Your task to perform on an android device: Clear all items from cart on amazon. Search for "razer nari" on amazon, select the first entry, and add it to the cart. Image 0: 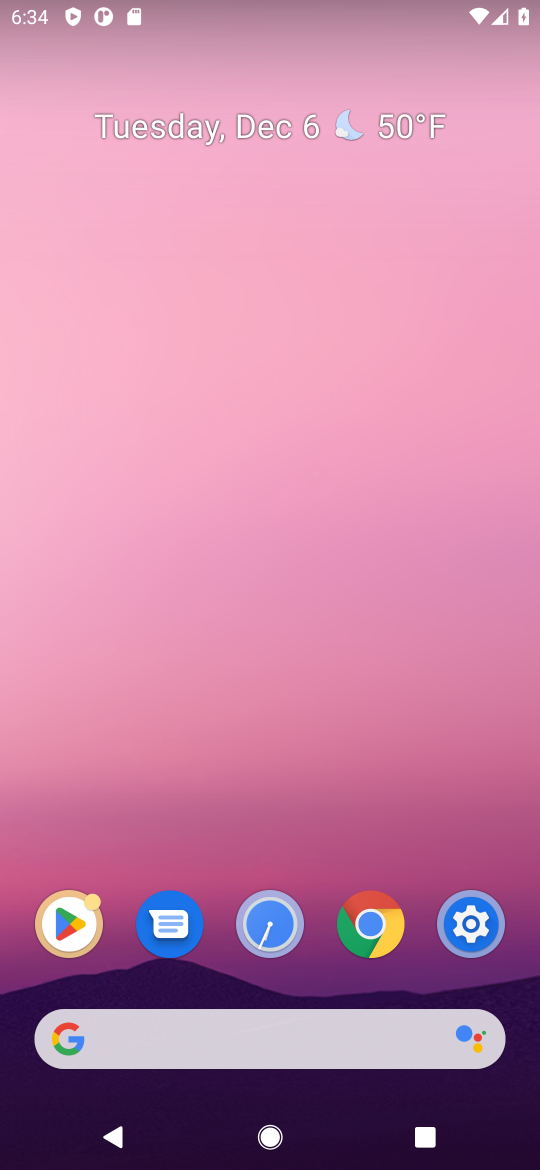
Step 0: click (256, 1058)
Your task to perform on an android device: Clear all items from cart on amazon. Search for "razer nari" on amazon, select the first entry, and add it to the cart. Image 1: 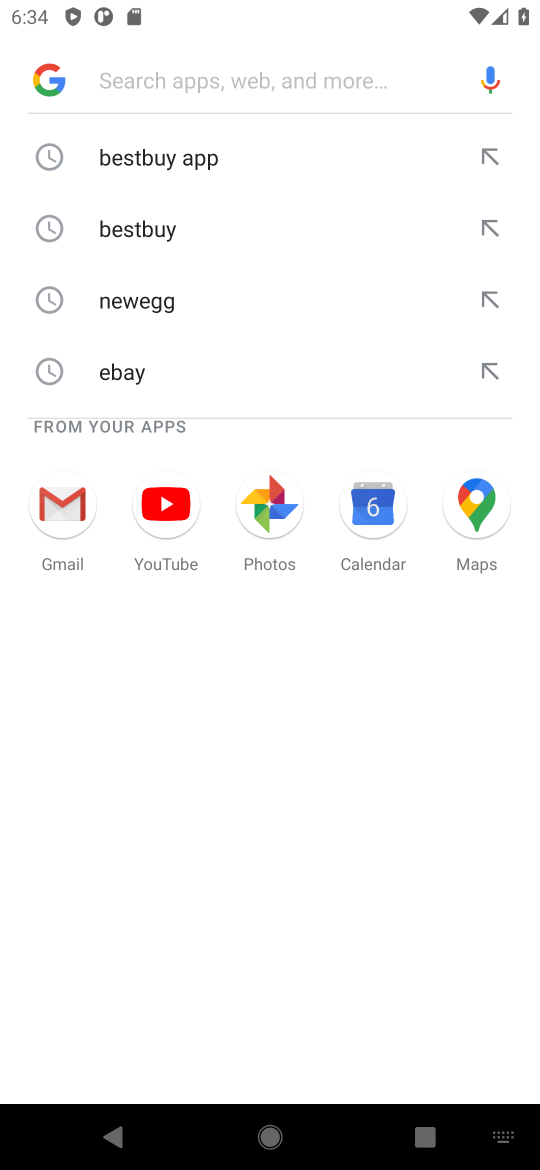
Step 1: type "amazon"
Your task to perform on an android device: Clear all items from cart on amazon. Search for "razer nari" on amazon, select the first entry, and add it to the cart. Image 2: 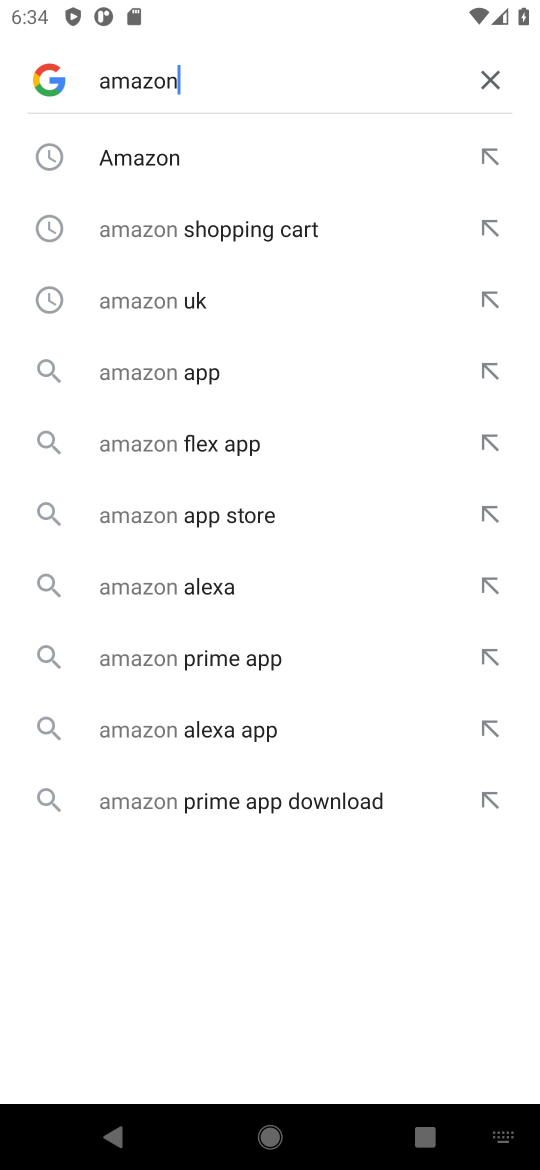
Step 2: click (165, 164)
Your task to perform on an android device: Clear all items from cart on amazon. Search for "razer nari" on amazon, select the first entry, and add it to the cart. Image 3: 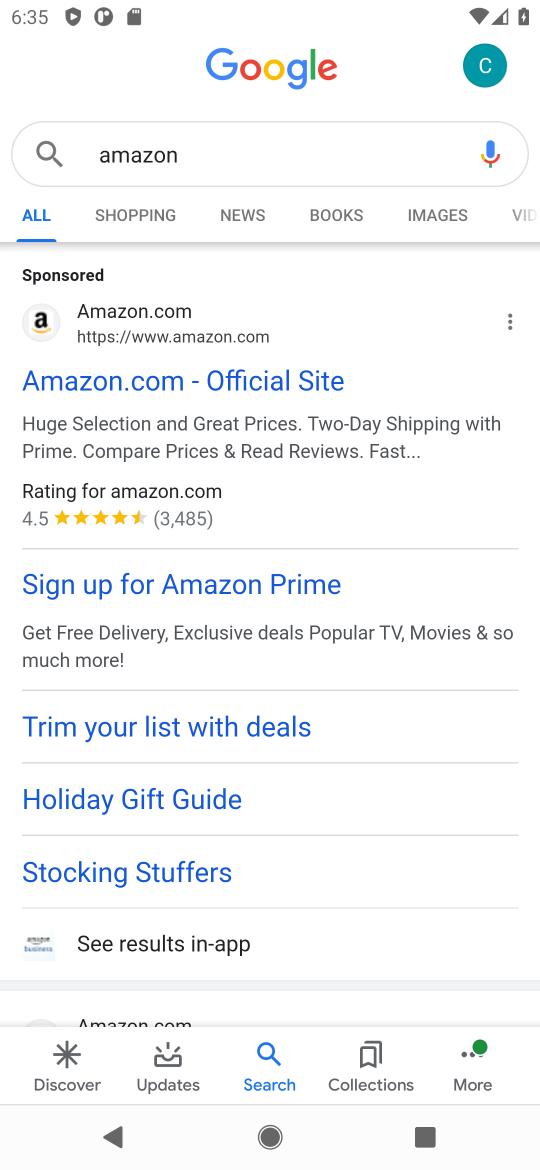
Step 3: click (71, 388)
Your task to perform on an android device: Clear all items from cart on amazon. Search for "razer nari" on amazon, select the first entry, and add it to the cart. Image 4: 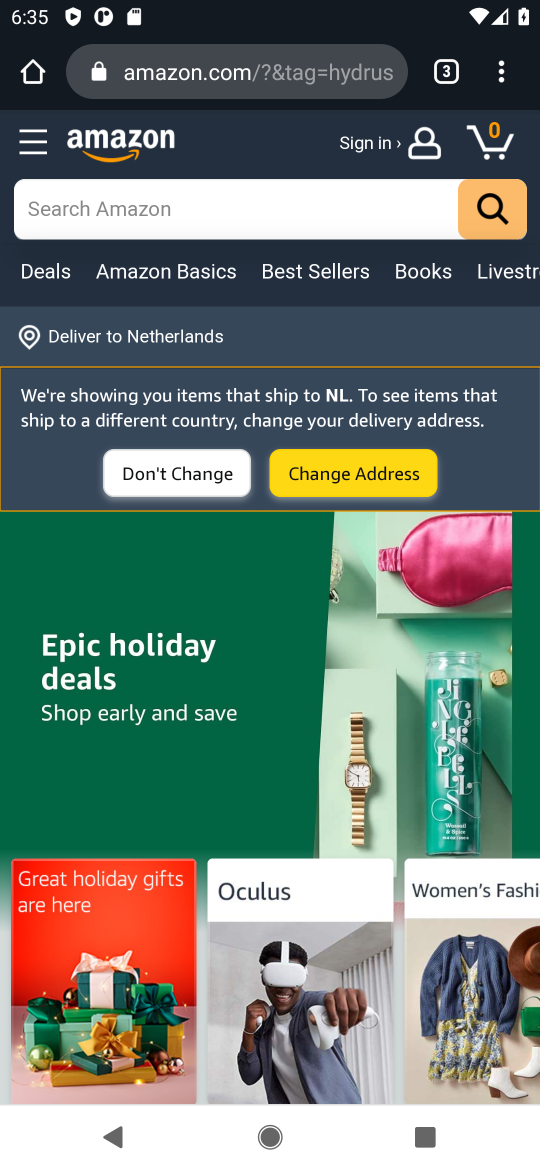
Step 4: click (233, 209)
Your task to perform on an android device: Clear all items from cart on amazon. Search for "razer nari" on amazon, select the first entry, and add it to the cart. Image 5: 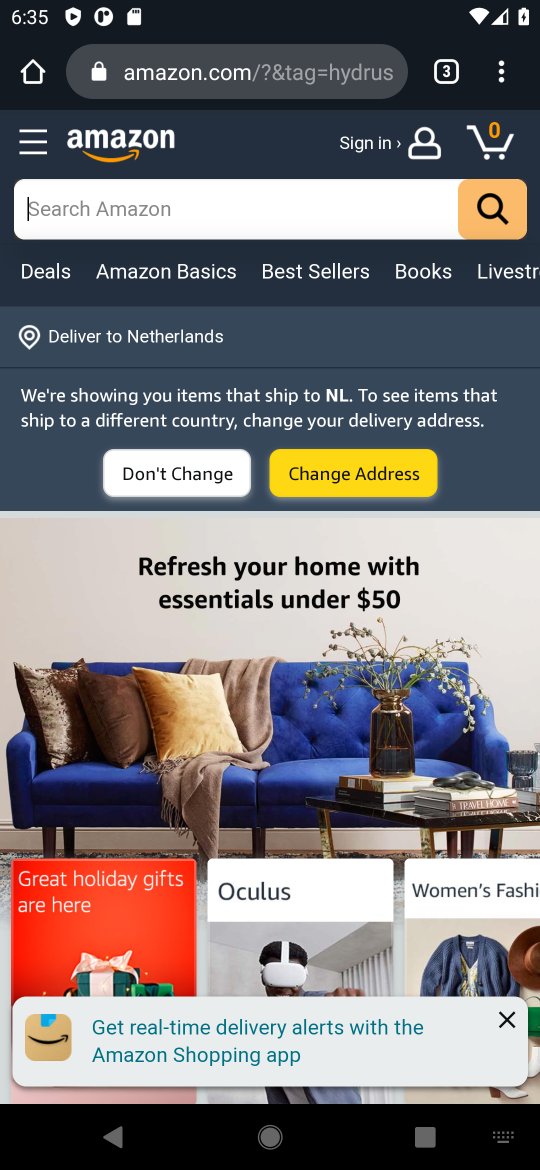
Step 5: type "razer nari"
Your task to perform on an android device: Clear all items from cart on amazon. Search for "razer nari" on amazon, select the first entry, and add it to the cart. Image 6: 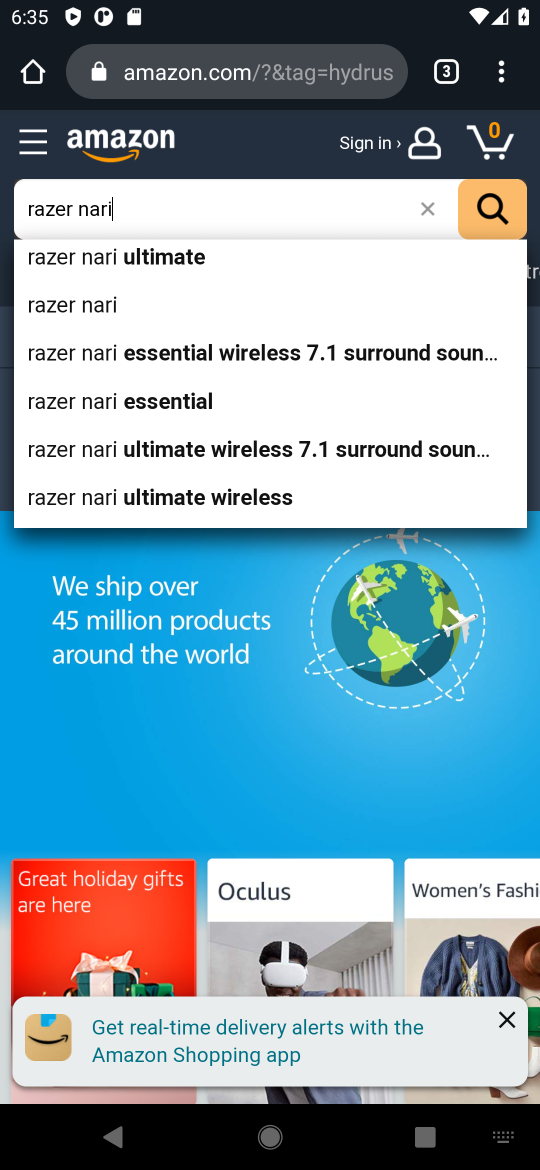
Step 6: click (56, 293)
Your task to perform on an android device: Clear all items from cart on amazon. Search for "razer nari" on amazon, select the first entry, and add it to the cart. Image 7: 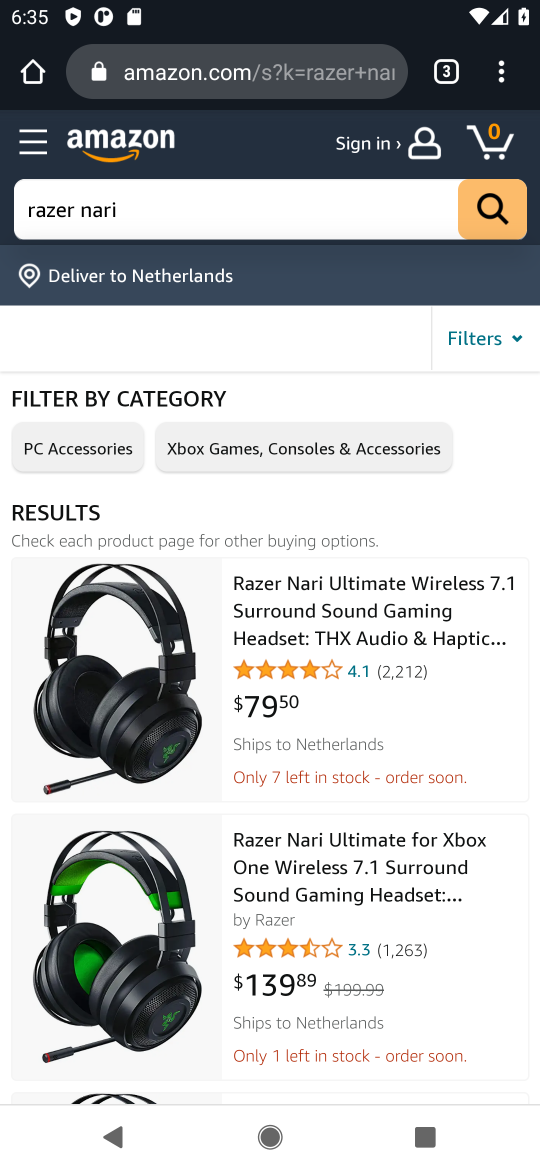
Step 7: click (266, 692)
Your task to perform on an android device: Clear all items from cart on amazon. Search for "razer nari" on amazon, select the first entry, and add it to the cart. Image 8: 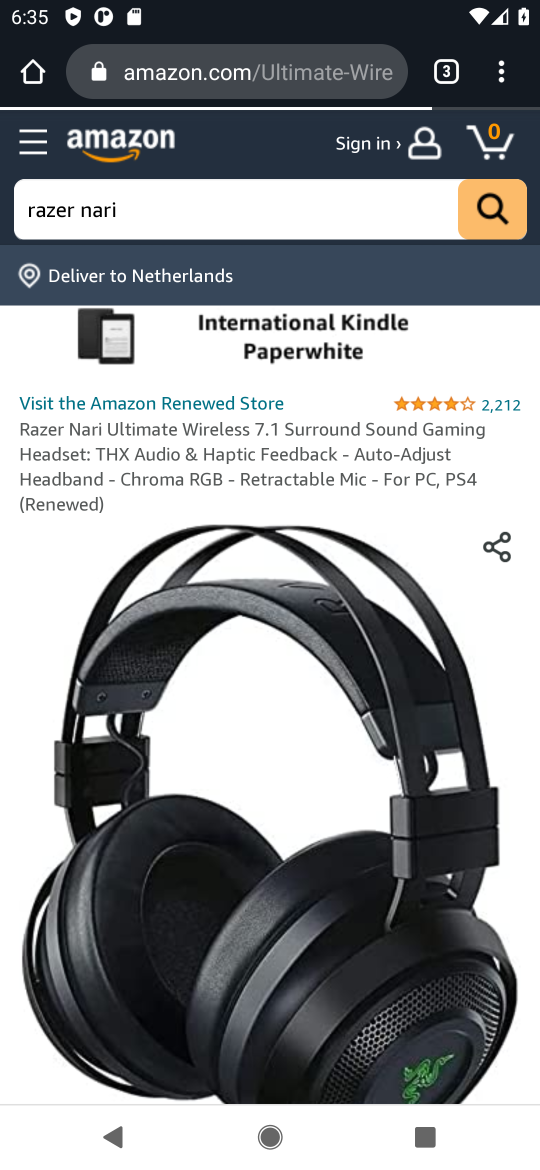
Step 8: drag from (305, 903) to (218, 302)
Your task to perform on an android device: Clear all items from cart on amazon. Search for "razer nari" on amazon, select the first entry, and add it to the cart. Image 9: 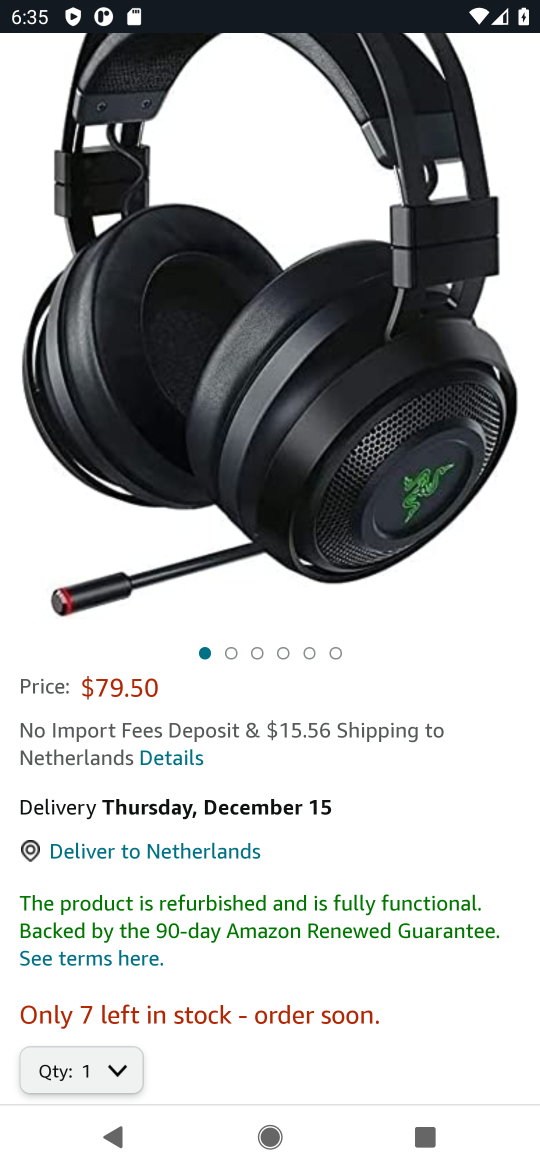
Step 9: drag from (389, 976) to (418, 673)
Your task to perform on an android device: Clear all items from cart on amazon. Search for "razer nari" on amazon, select the first entry, and add it to the cart. Image 10: 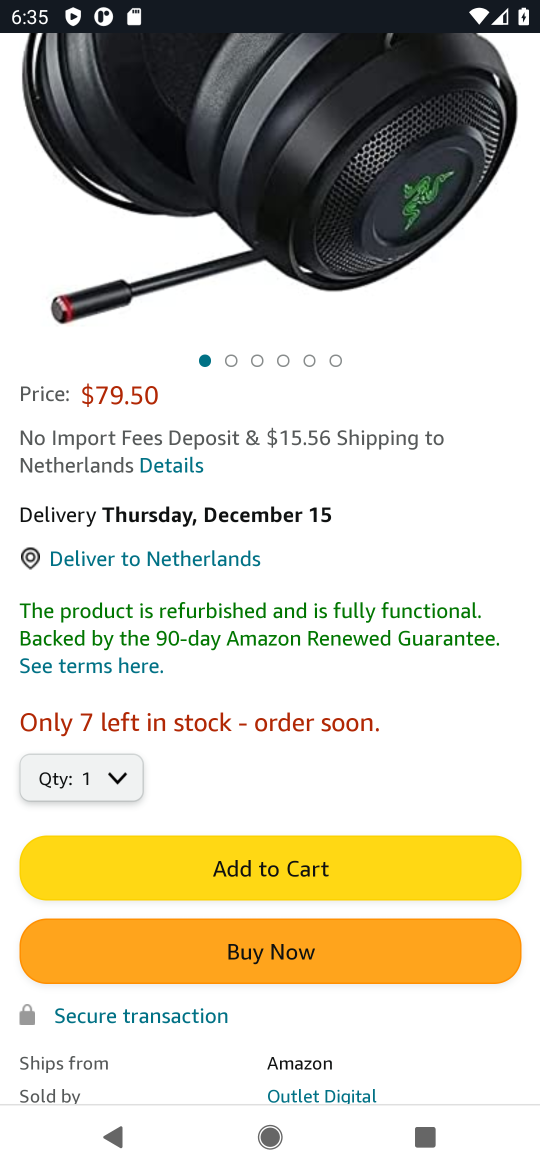
Step 10: click (371, 886)
Your task to perform on an android device: Clear all items from cart on amazon. Search for "razer nari" on amazon, select the first entry, and add it to the cart. Image 11: 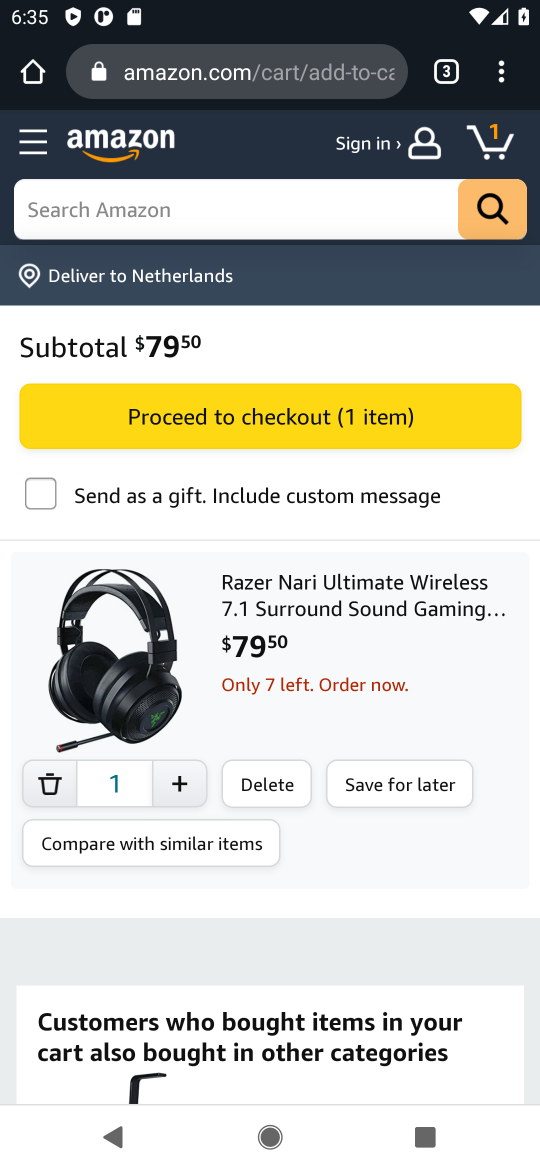
Step 11: task complete